Your task to perform on an android device: toggle airplane mode Image 0: 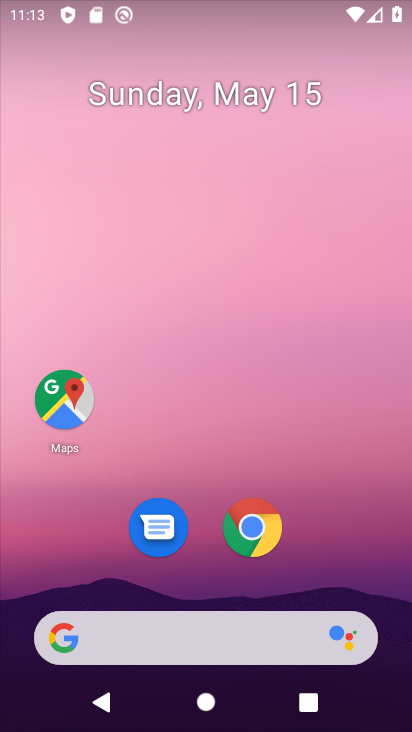
Step 0: drag from (293, 493) to (231, 34)
Your task to perform on an android device: toggle airplane mode Image 1: 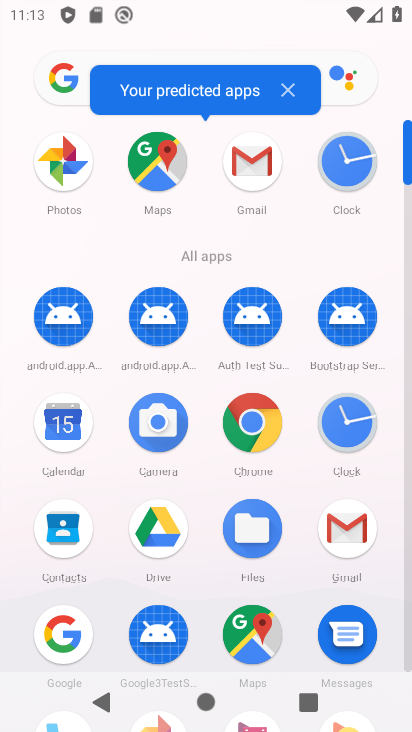
Step 1: drag from (4, 562) to (22, 299)
Your task to perform on an android device: toggle airplane mode Image 2: 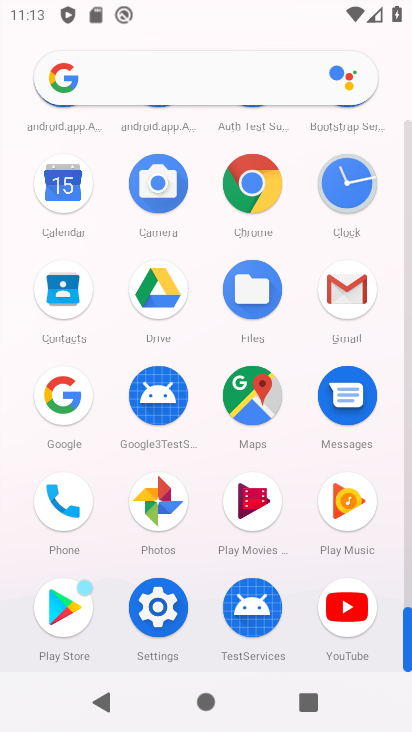
Step 2: click (155, 604)
Your task to perform on an android device: toggle airplane mode Image 3: 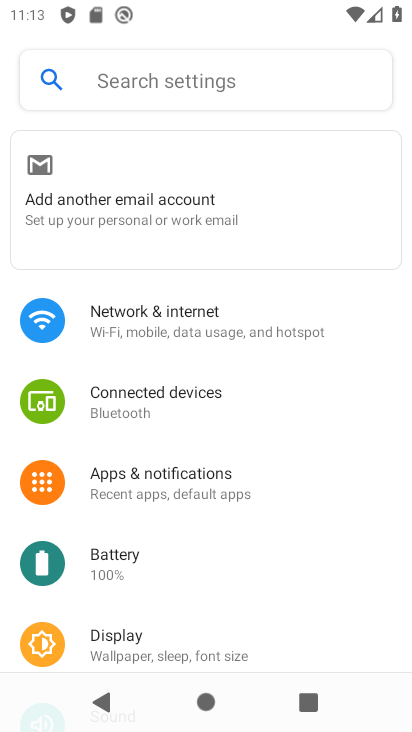
Step 3: click (210, 318)
Your task to perform on an android device: toggle airplane mode Image 4: 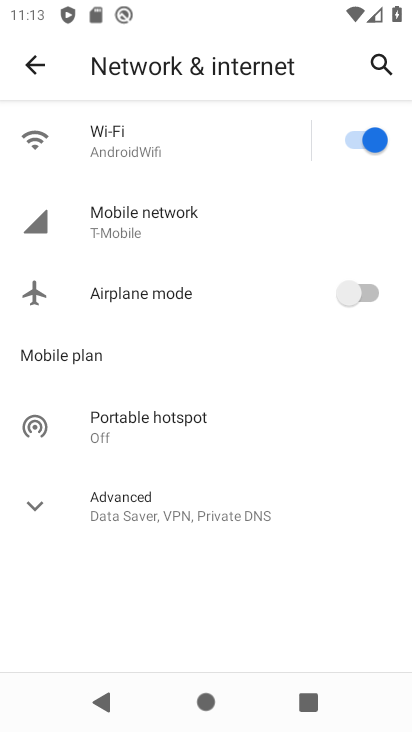
Step 4: click (358, 294)
Your task to perform on an android device: toggle airplane mode Image 5: 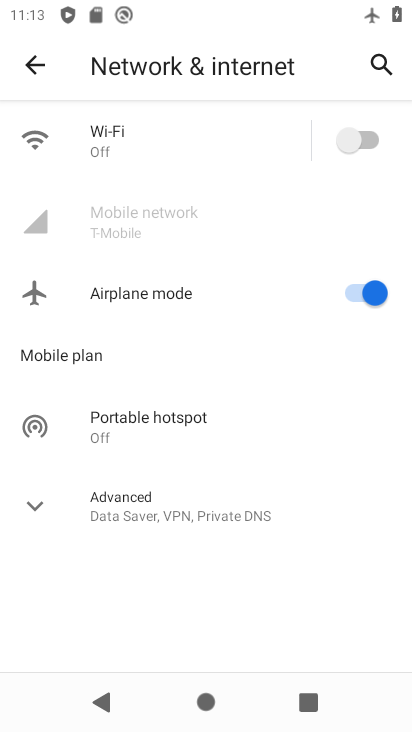
Step 5: click (32, 513)
Your task to perform on an android device: toggle airplane mode Image 6: 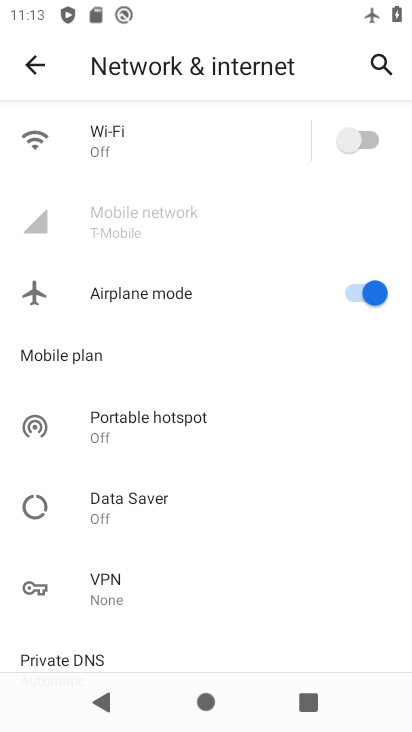
Step 6: task complete